Your task to perform on an android device: What is the recent news? Image 0: 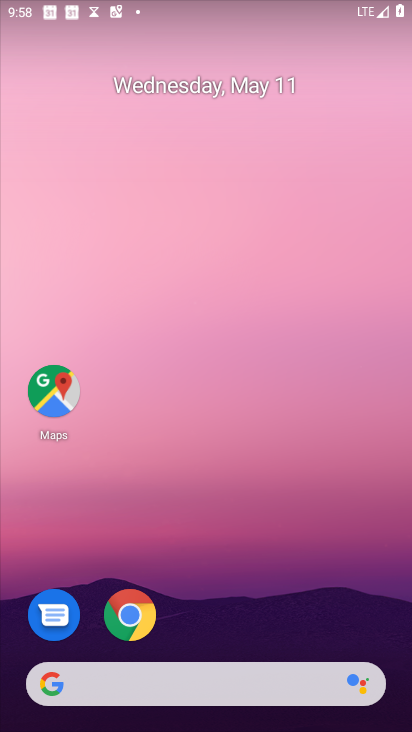
Step 0: drag from (269, 624) to (227, 205)
Your task to perform on an android device: What is the recent news? Image 1: 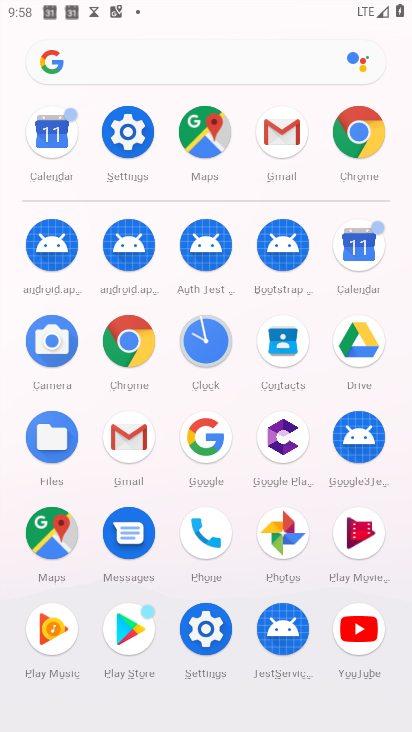
Step 1: click (215, 446)
Your task to perform on an android device: What is the recent news? Image 2: 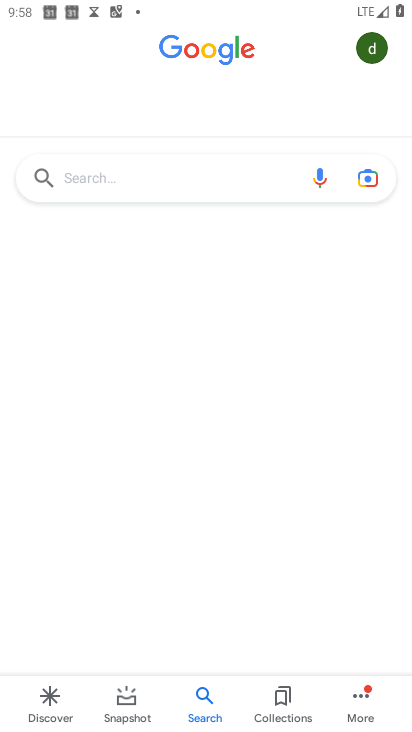
Step 2: click (61, 712)
Your task to perform on an android device: What is the recent news? Image 3: 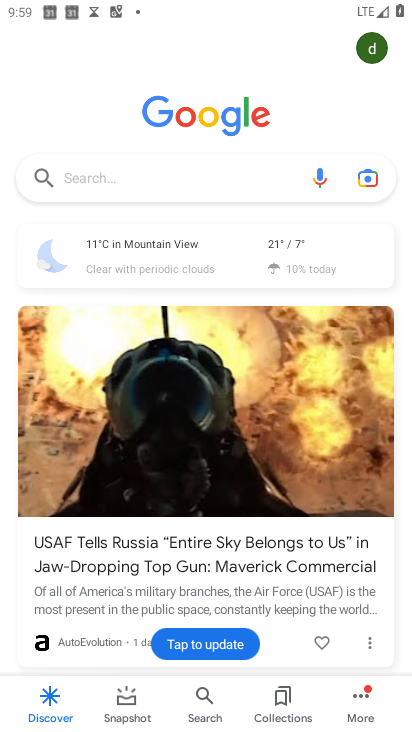
Step 3: task complete